Your task to perform on an android device: empty trash in google photos Image 0: 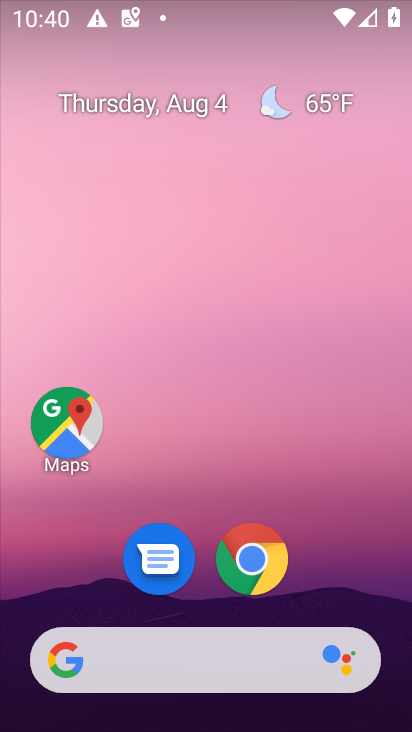
Step 0: drag from (183, 670) to (199, 46)
Your task to perform on an android device: empty trash in google photos Image 1: 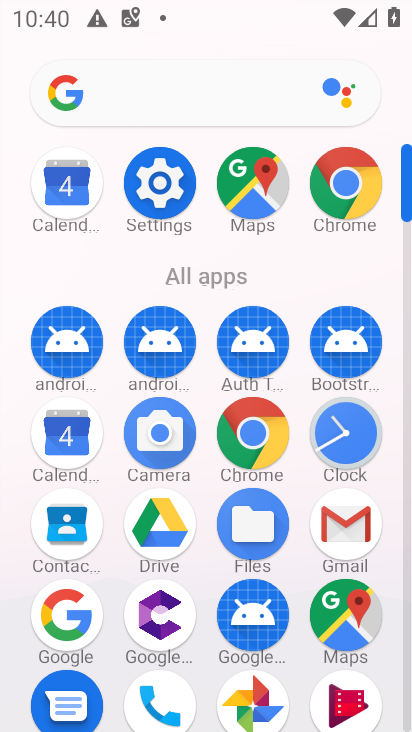
Step 1: click (262, 704)
Your task to perform on an android device: empty trash in google photos Image 2: 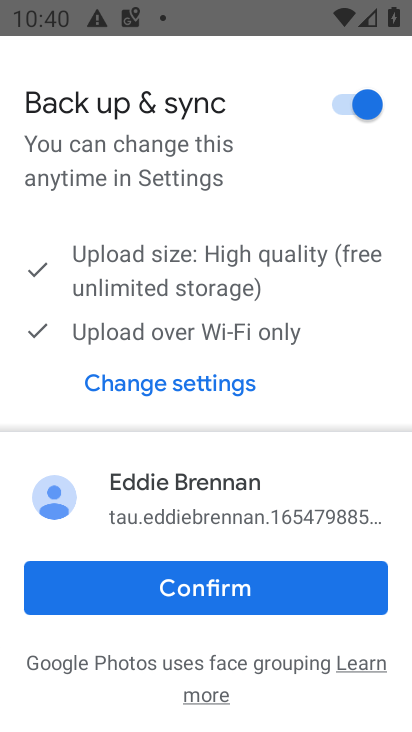
Step 2: click (175, 585)
Your task to perform on an android device: empty trash in google photos Image 3: 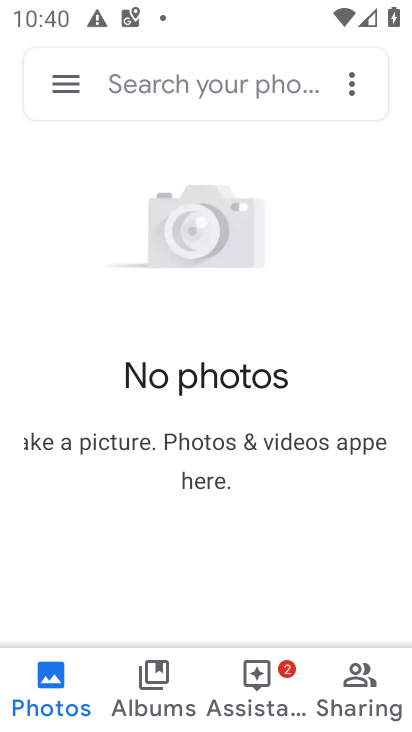
Step 3: click (64, 92)
Your task to perform on an android device: empty trash in google photos Image 4: 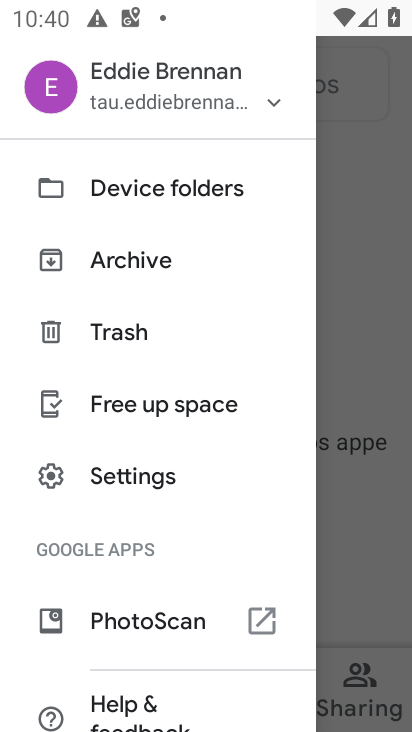
Step 4: drag from (145, 620) to (101, 230)
Your task to perform on an android device: empty trash in google photos Image 5: 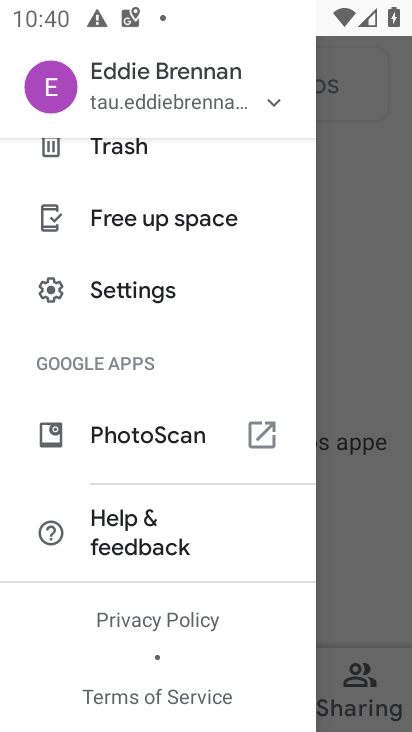
Step 5: click (113, 144)
Your task to perform on an android device: empty trash in google photos Image 6: 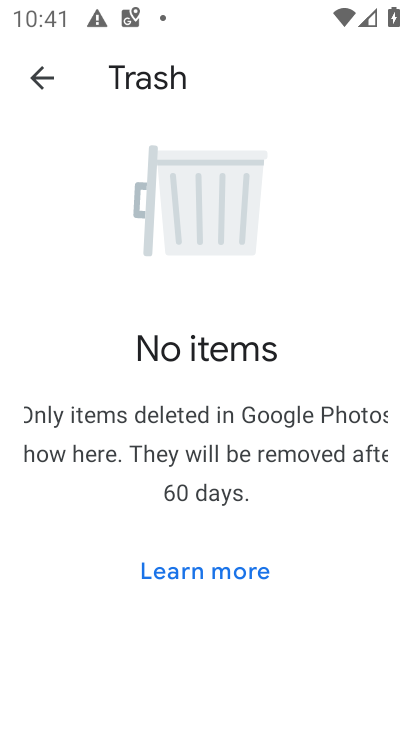
Step 6: task complete